Your task to perform on an android device: show emergency info Image 0: 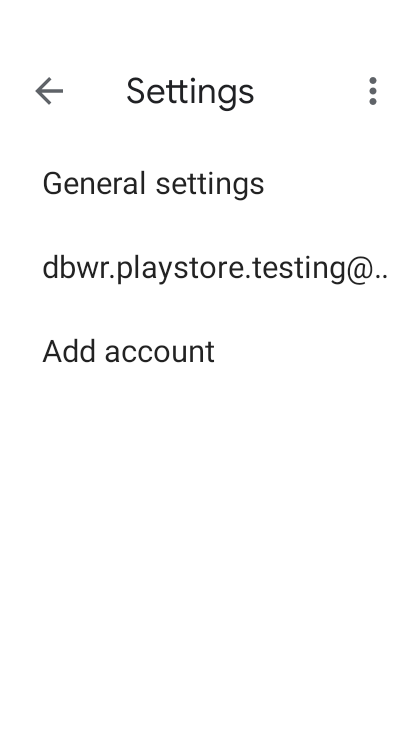
Step 0: press home button
Your task to perform on an android device: show emergency info Image 1: 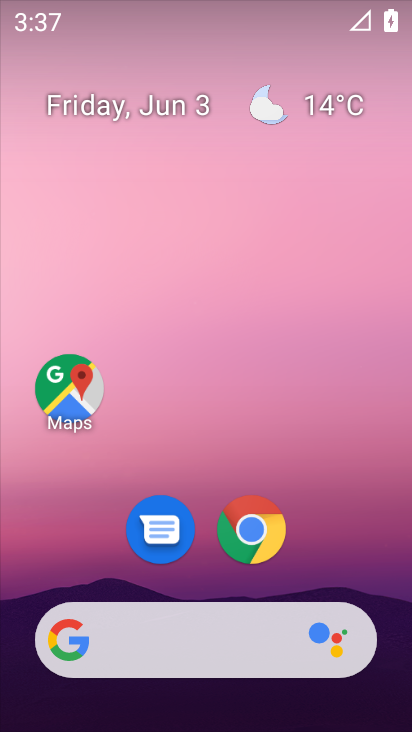
Step 1: drag from (363, 570) to (370, 137)
Your task to perform on an android device: show emergency info Image 2: 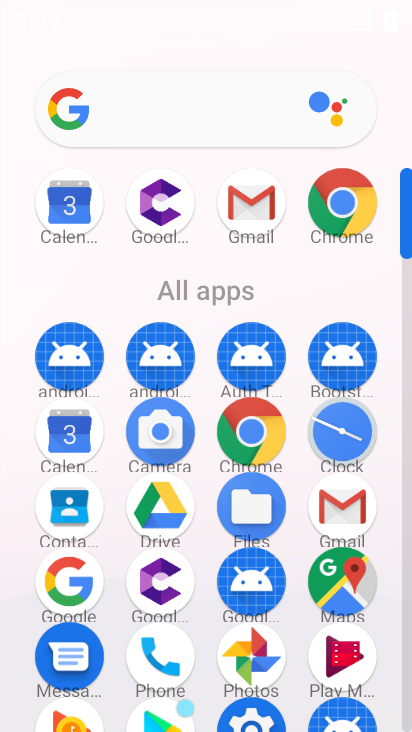
Step 2: drag from (384, 557) to (355, 163)
Your task to perform on an android device: show emergency info Image 3: 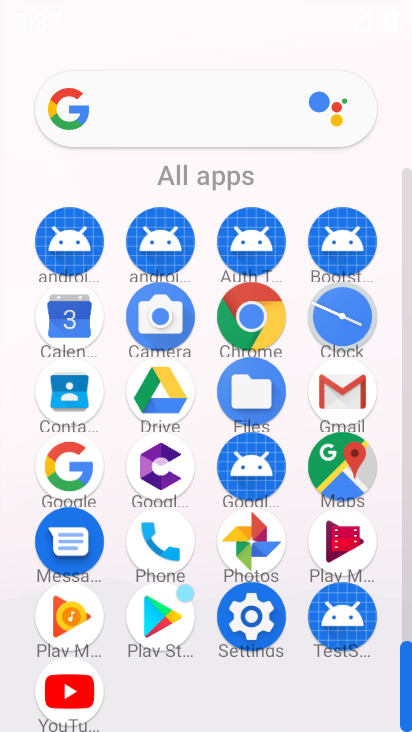
Step 3: click (253, 615)
Your task to perform on an android device: show emergency info Image 4: 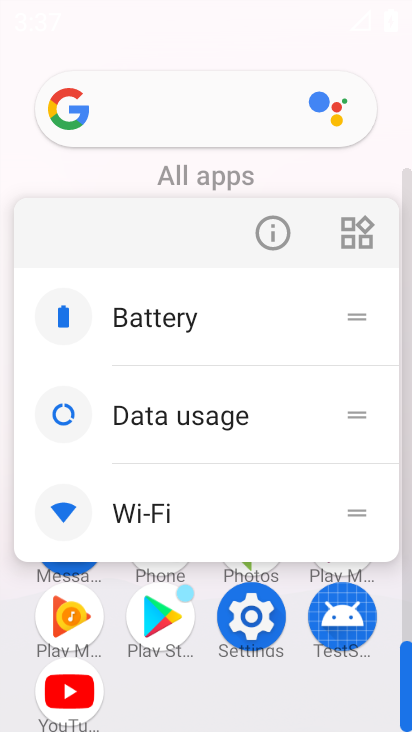
Step 4: click (253, 615)
Your task to perform on an android device: show emergency info Image 5: 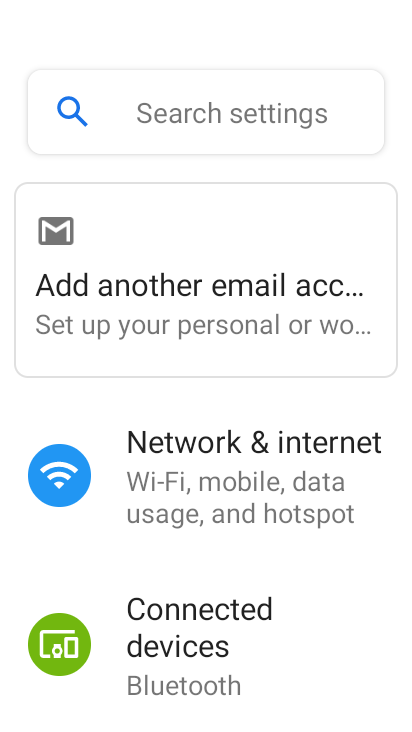
Step 5: drag from (244, 687) to (252, 238)
Your task to perform on an android device: show emergency info Image 6: 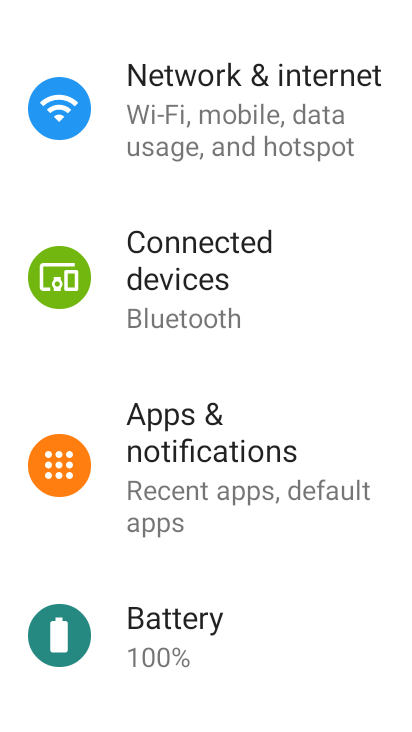
Step 6: drag from (198, 619) to (220, 160)
Your task to perform on an android device: show emergency info Image 7: 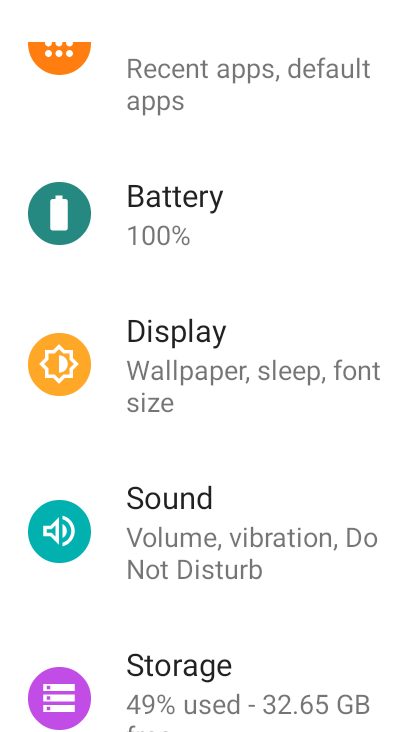
Step 7: drag from (213, 609) to (320, 168)
Your task to perform on an android device: show emergency info Image 8: 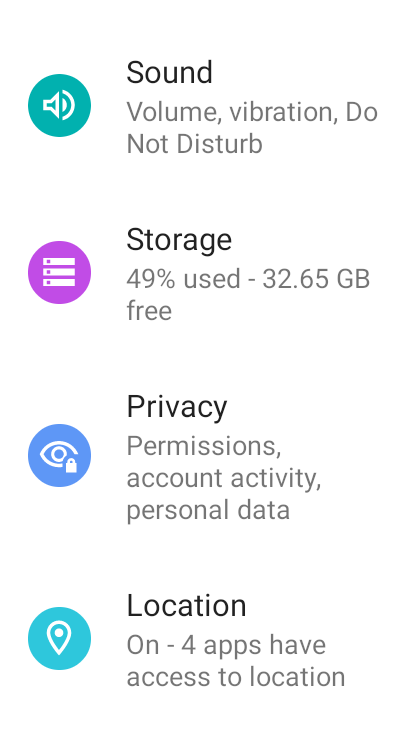
Step 8: drag from (300, 646) to (331, 244)
Your task to perform on an android device: show emergency info Image 9: 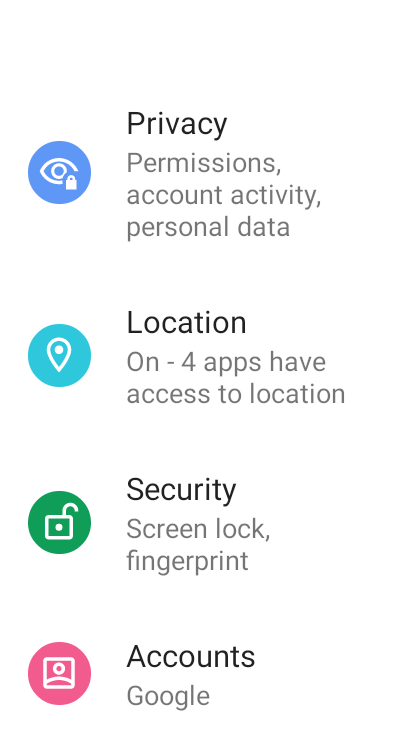
Step 9: drag from (190, 643) to (305, 146)
Your task to perform on an android device: show emergency info Image 10: 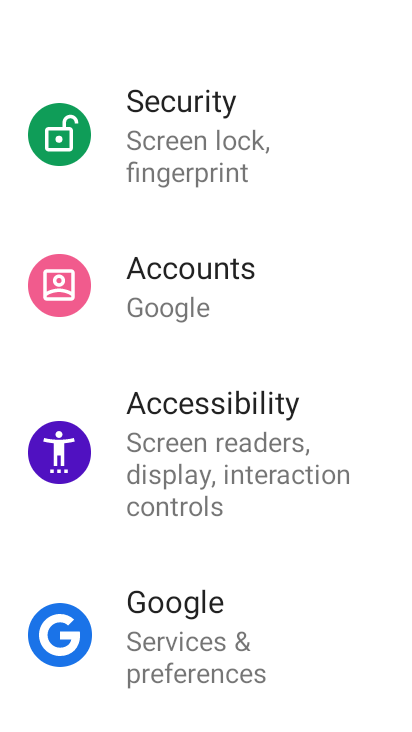
Step 10: drag from (328, 615) to (335, 142)
Your task to perform on an android device: show emergency info Image 11: 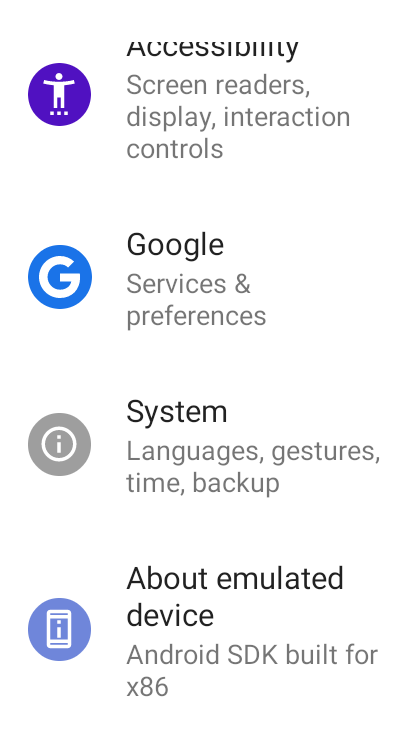
Step 11: drag from (272, 691) to (331, 189)
Your task to perform on an android device: show emergency info Image 12: 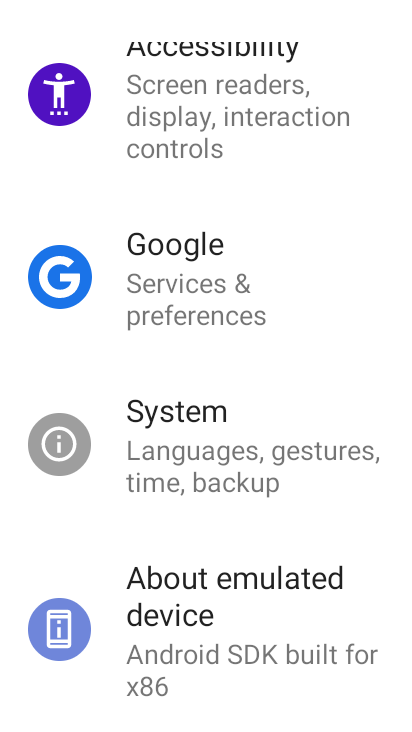
Step 12: click (222, 639)
Your task to perform on an android device: show emergency info Image 13: 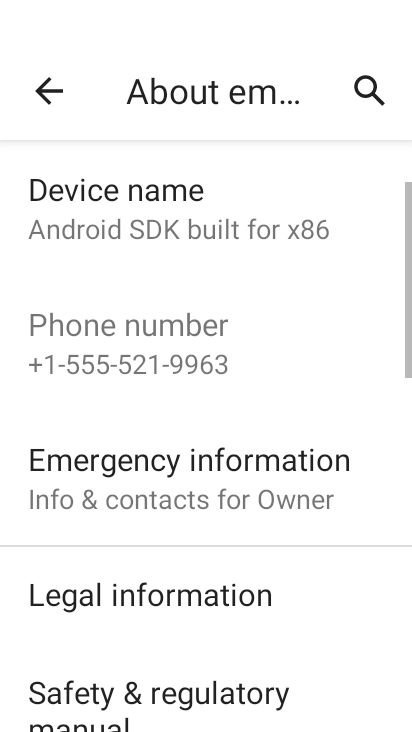
Step 13: click (163, 454)
Your task to perform on an android device: show emergency info Image 14: 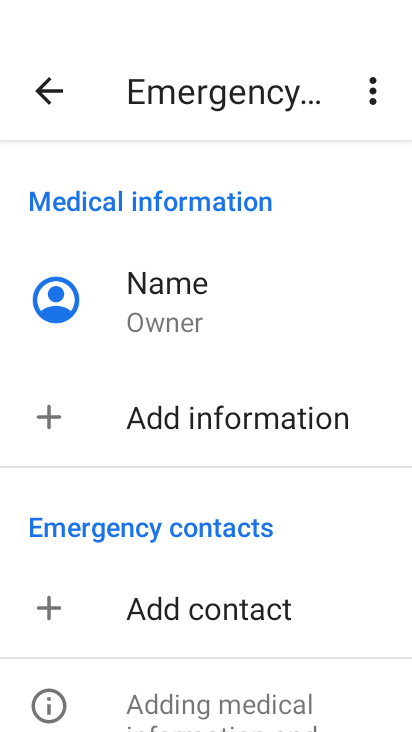
Step 14: task complete